Your task to perform on an android device: Do I have any events today? Image 0: 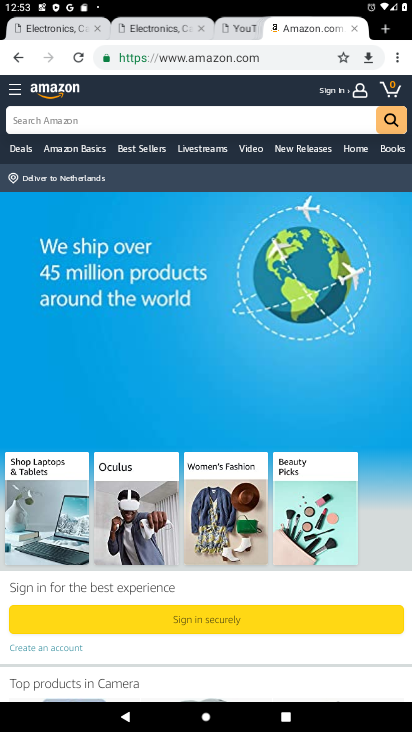
Step 0: press home button
Your task to perform on an android device: Do I have any events today? Image 1: 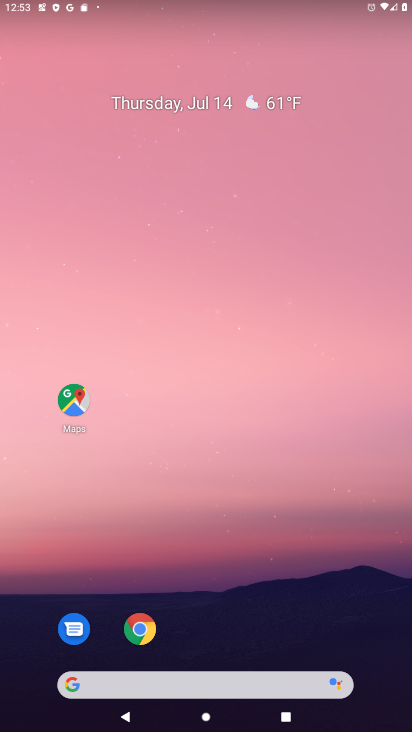
Step 1: click (155, 111)
Your task to perform on an android device: Do I have any events today? Image 2: 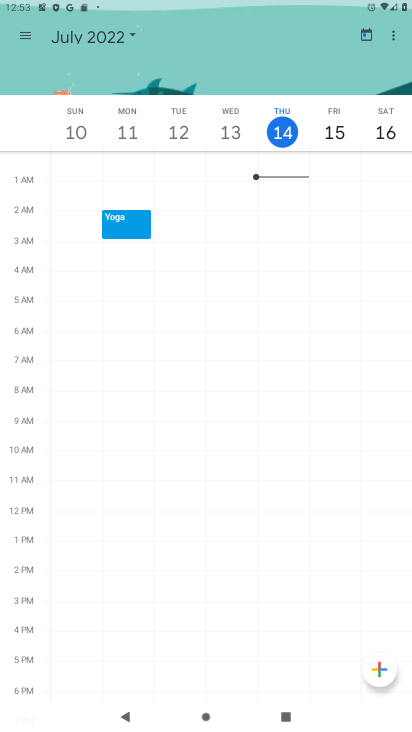
Step 2: click (20, 34)
Your task to perform on an android device: Do I have any events today? Image 3: 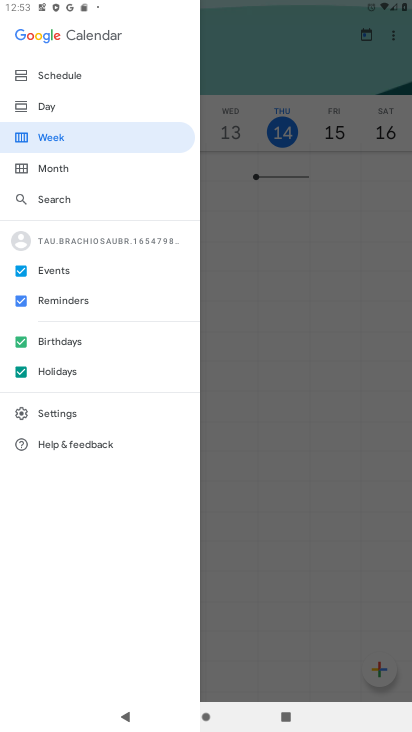
Step 3: click (21, 297)
Your task to perform on an android device: Do I have any events today? Image 4: 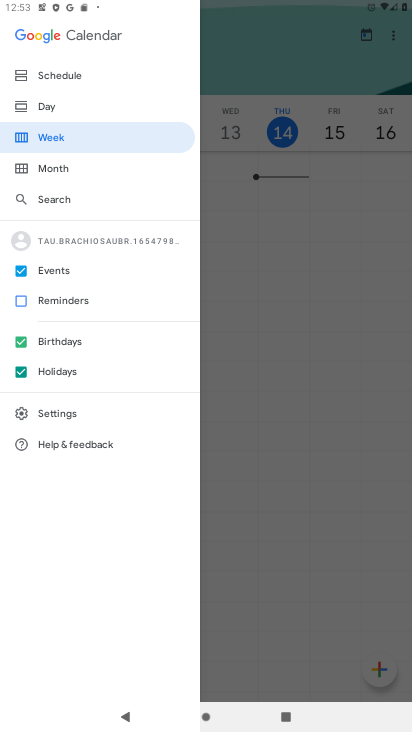
Step 4: click (19, 350)
Your task to perform on an android device: Do I have any events today? Image 5: 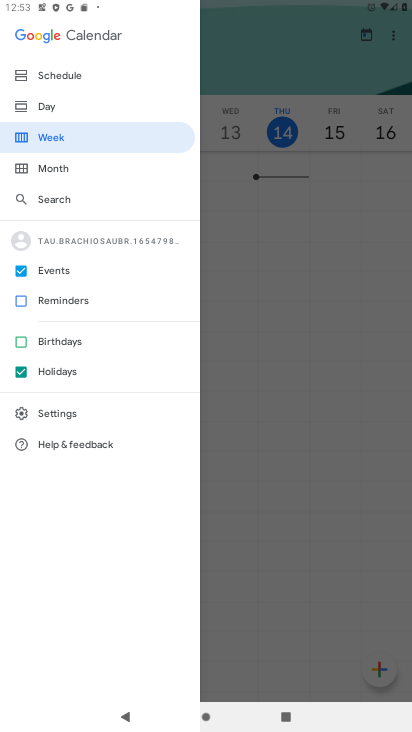
Step 5: click (19, 369)
Your task to perform on an android device: Do I have any events today? Image 6: 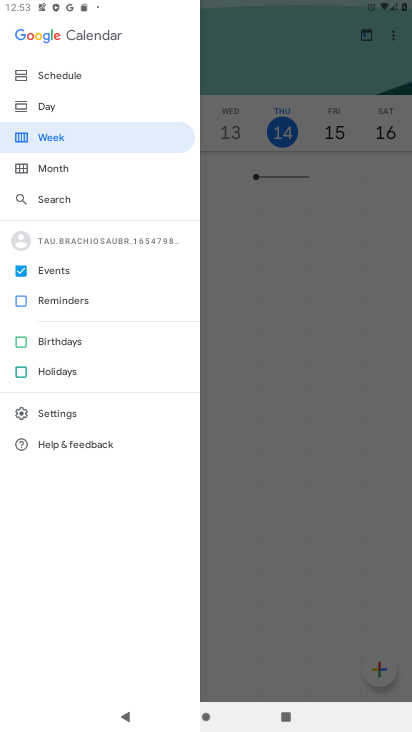
Step 6: click (25, 105)
Your task to perform on an android device: Do I have any events today? Image 7: 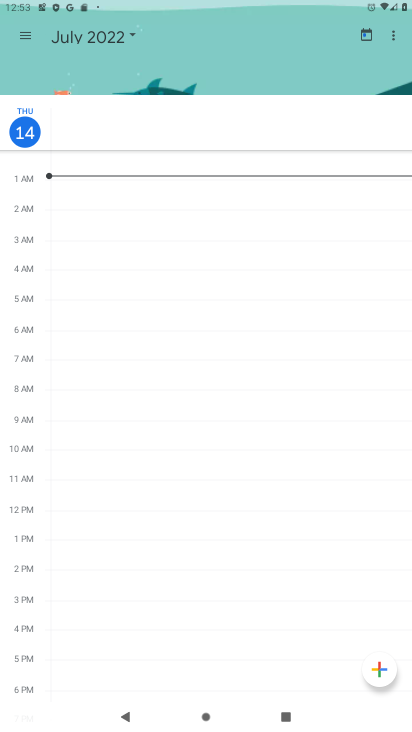
Step 7: task complete